Your task to perform on an android device: Go to Android settings Image 0: 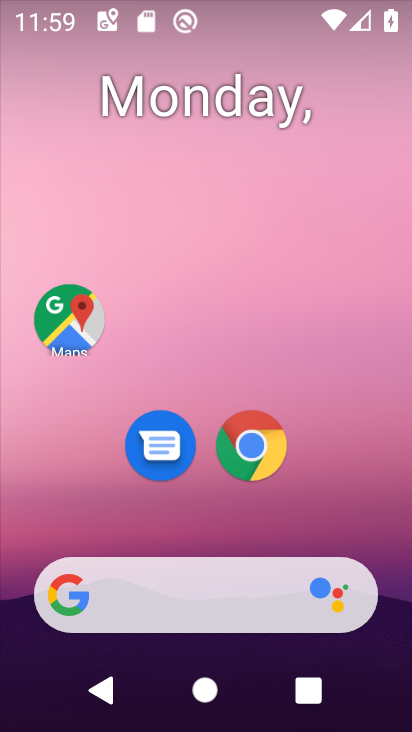
Step 0: drag from (314, 520) to (165, 30)
Your task to perform on an android device: Go to Android settings Image 1: 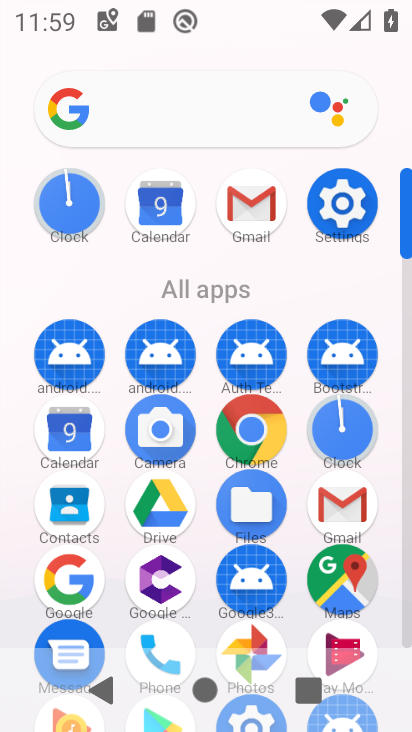
Step 1: click (347, 203)
Your task to perform on an android device: Go to Android settings Image 2: 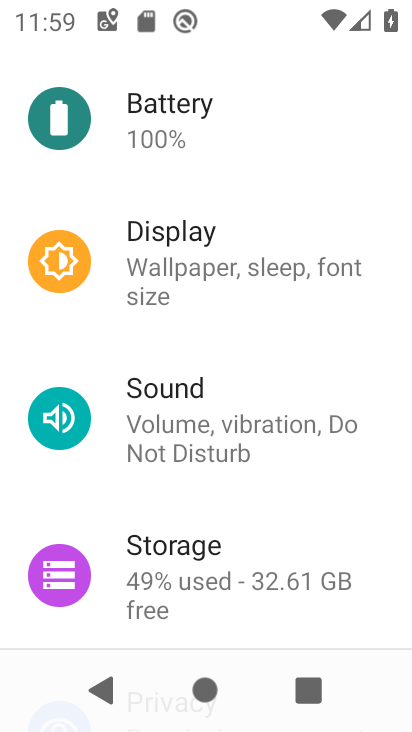
Step 2: drag from (205, 457) to (123, 10)
Your task to perform on an android device: Go to Android settings Image 3: 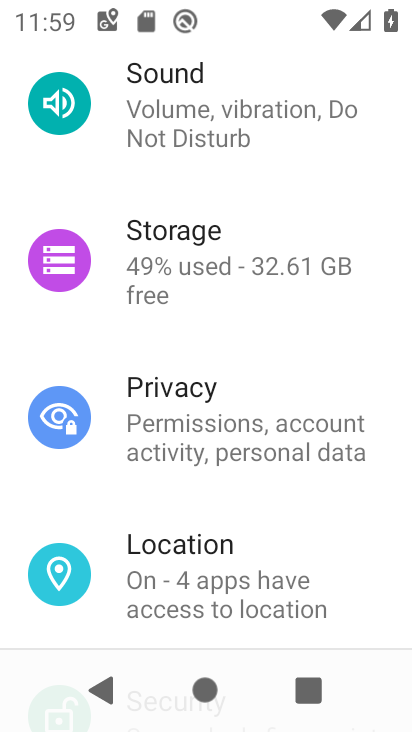
Step 3: drag from (194, 508) to (141, 75)
Your task to perform on an android device: Go to Android settings Image 4: 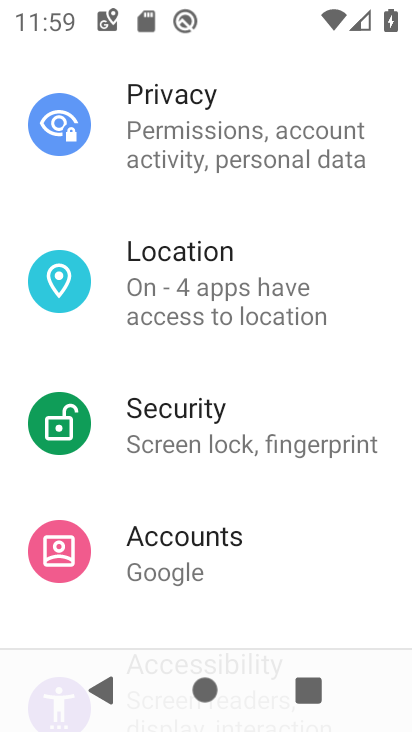
Step 4: drag from (212, 469) to (164, 33)
Your task to perform on an android device: Go to Android settings Image 5: 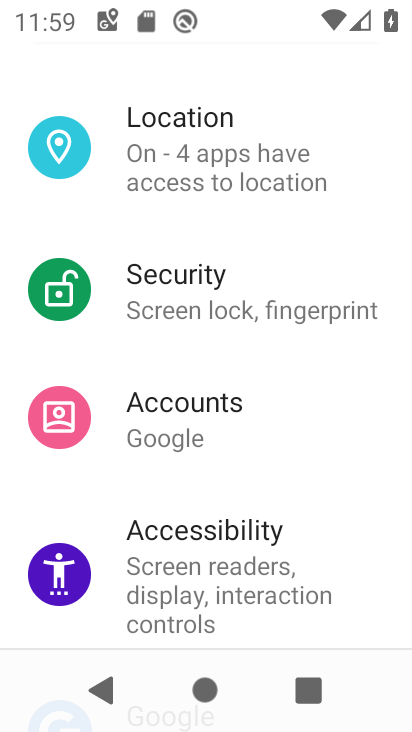
Step 5: drag from (177, 491) to (153, 27)
Your task to perform on an android device: Go to Android settings Image 6: 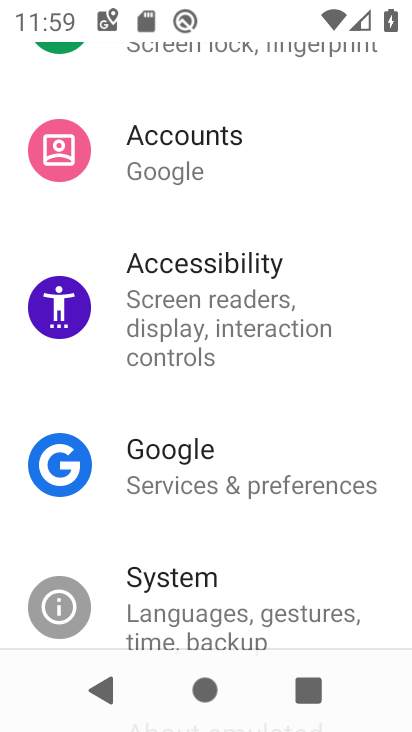
Step 6: drag from (181, 514) to (127, 113)
Your task to perform on an android device: Go to Android settings Image 7: 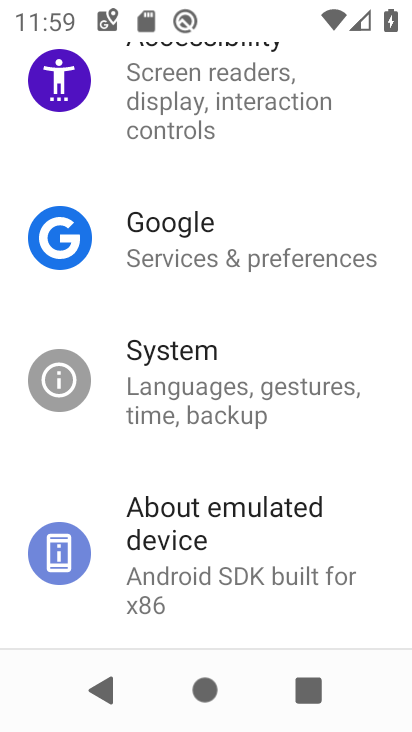
Step 7: click (169, 517)
Your task to perform on an android device: Go to Android settings Image 8: 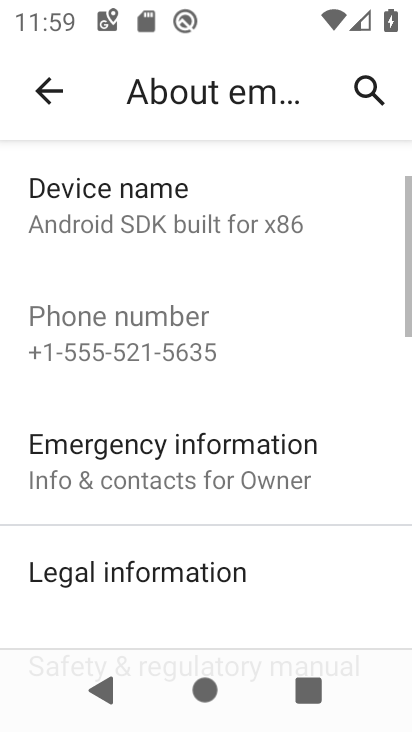
Step 8: drag from (238, 525) to (207, 270)
Your task to perform on an android device: Go to Android settings Image 9: 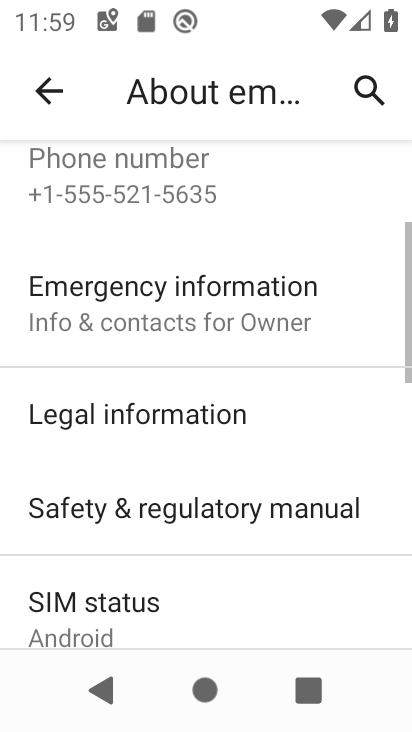
Step 9: drag from (158, 533) to (153, 91)
Your task to perform on an android device: Go to Android settings Image 10: 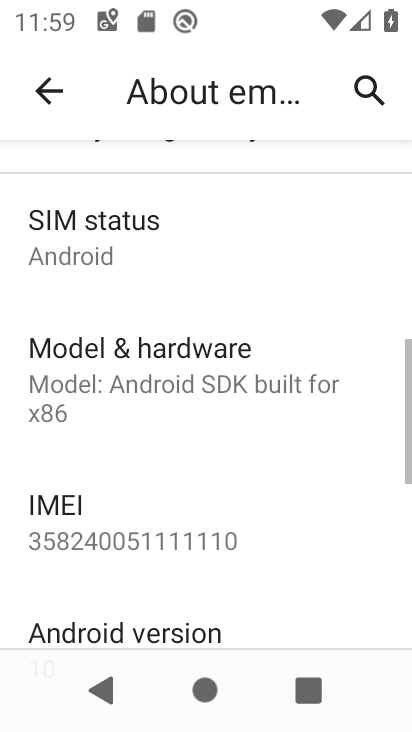
Step 10: drag from (157, 589) to (133, 377)
Your task to perform on an android device: Go to Android settings Image 11: 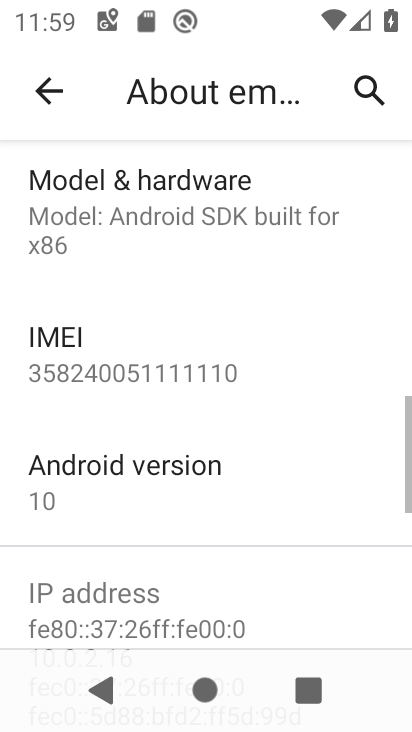
Step 11: click (114, 462)
Your task to perform on an android device: Go to Android settings Image 12: 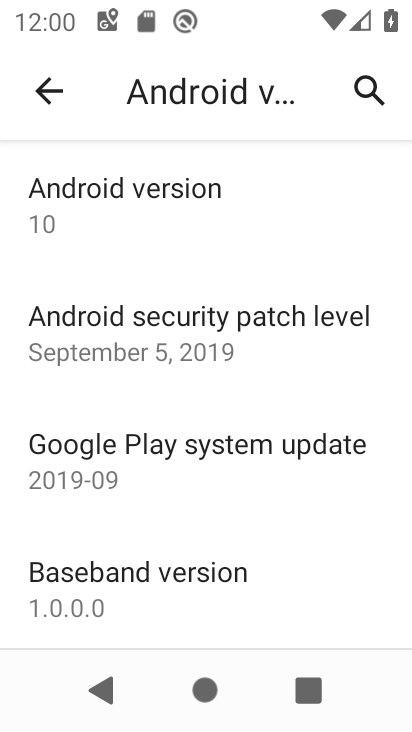
Step 12: task complete